Your task to perform on an android device: Go to location settings Image 0: 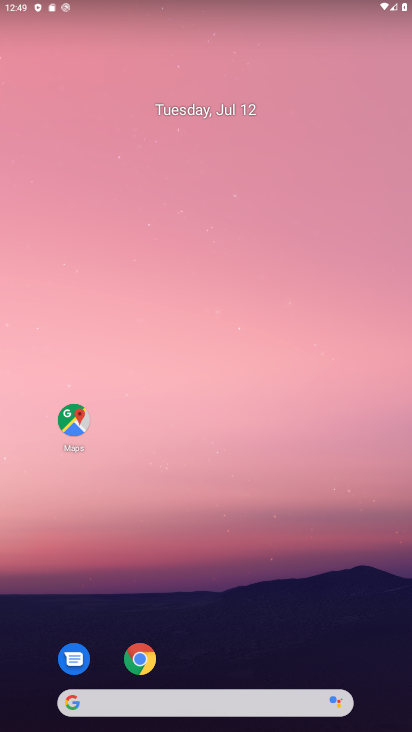
Step 0: drag from (208, 643) to (247, 260)
Your task to perform on an android device: Go to location settings Image 1: 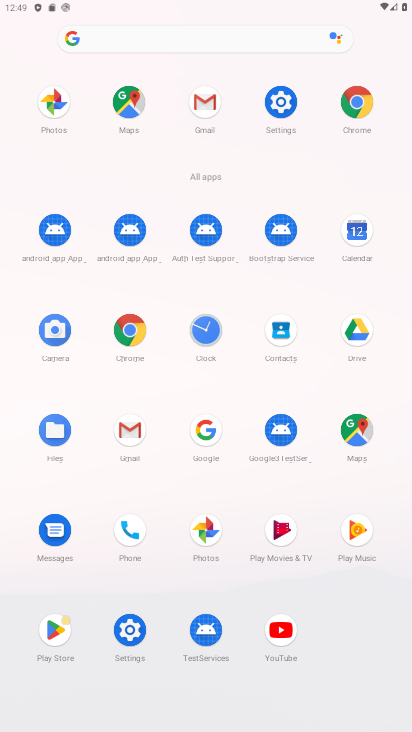
Step 1: click (293, 104)
Your task to perform on an android device: Go to location settings Image 2: 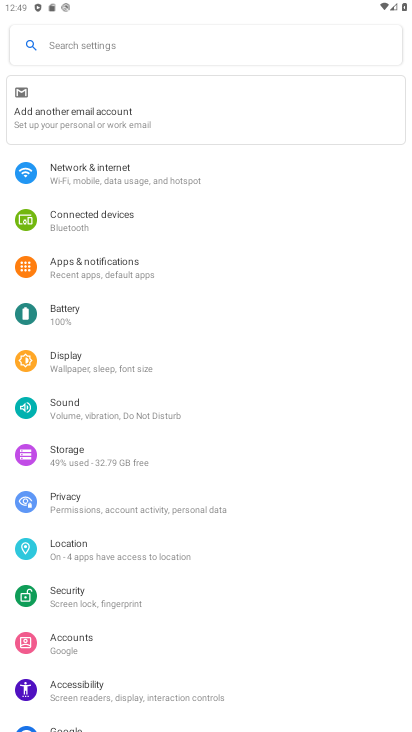
Step 2: click (100, 564)
Your task to perform on an android device: Go to location settings Image 3: 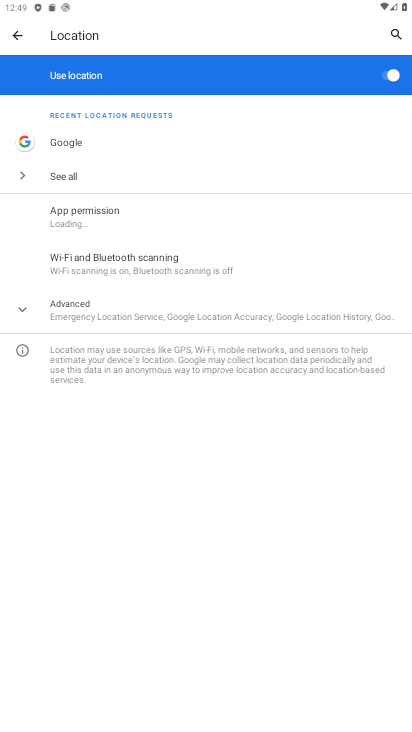
Step 3: task complete